Your task to perform on an android device: What's on my calendar tomorrow? Image 0: 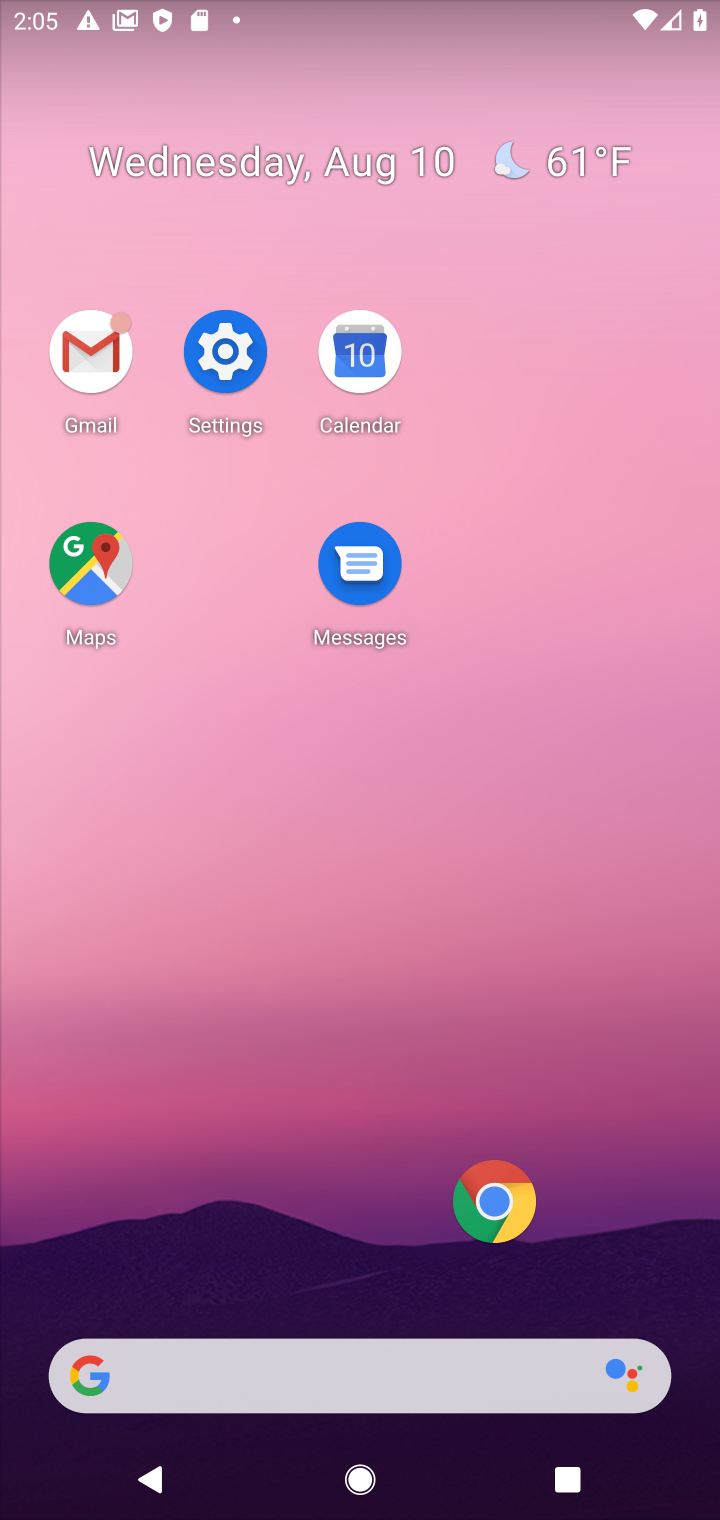
Step 0: click (380, 342)
Your task to perform on an android device: What's on my calendar tomorrow? Image 1: 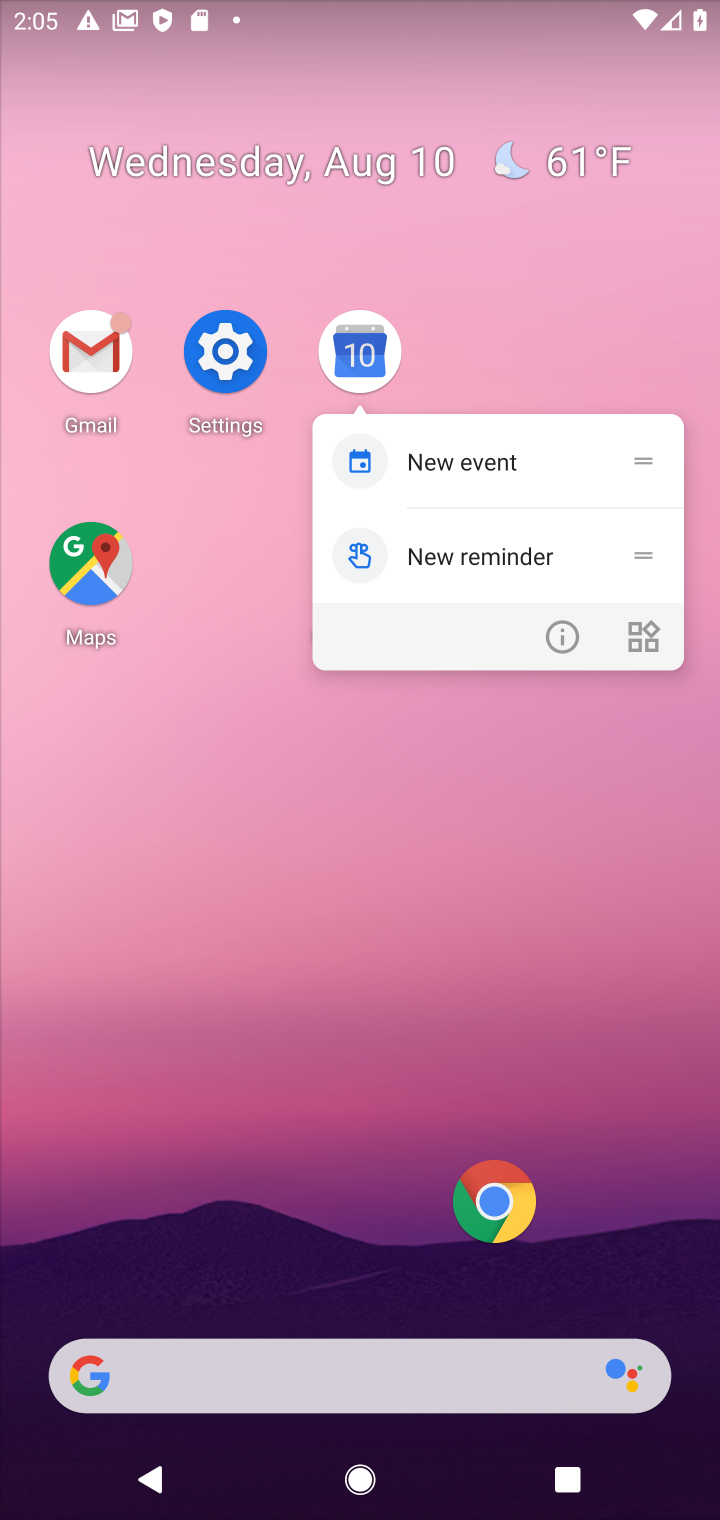
Step 1: click (380, 342)
Your task to perform on an android device: What's on my calendar tomorrow? Image 2: 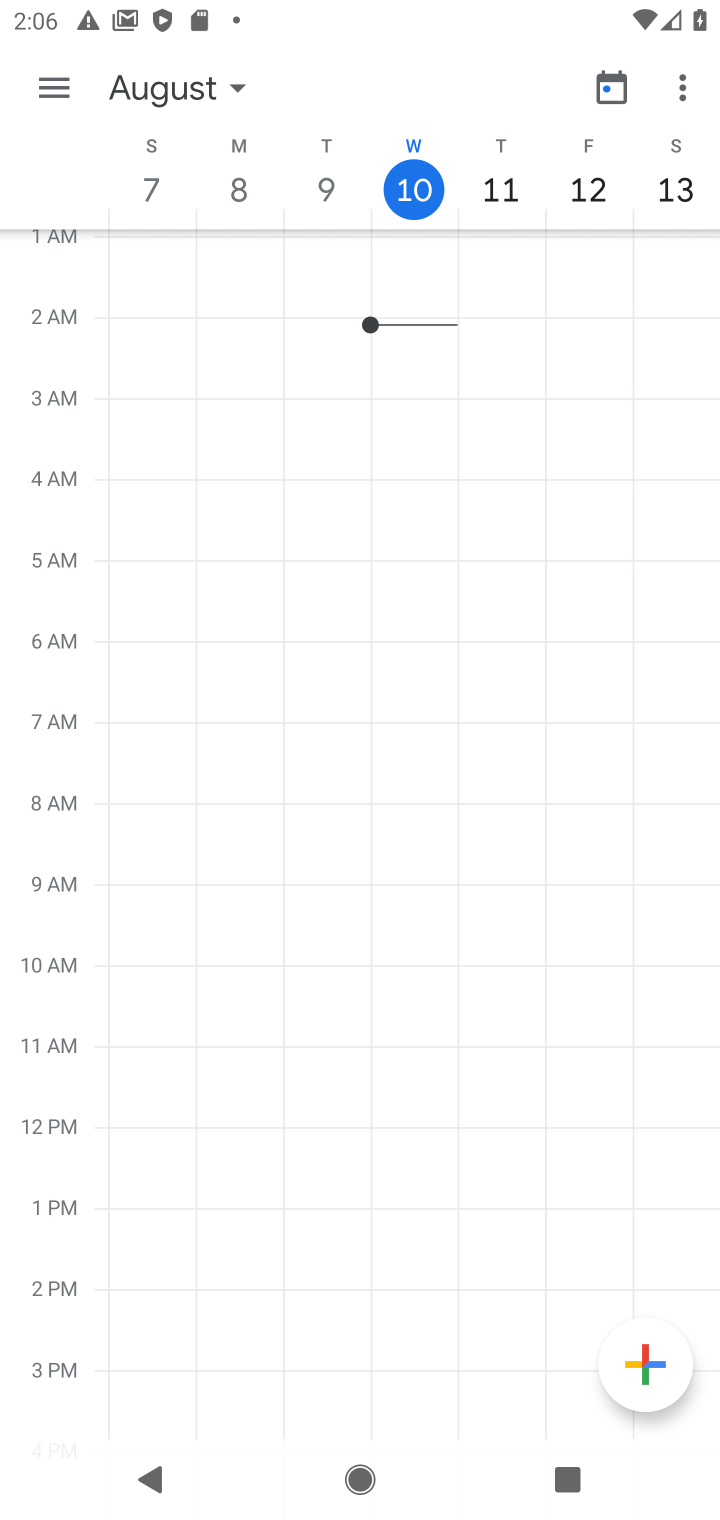
Step 2: click (502, 194)
Your task to perform on an android device: What's on my calendar tomorrow? Image 3: 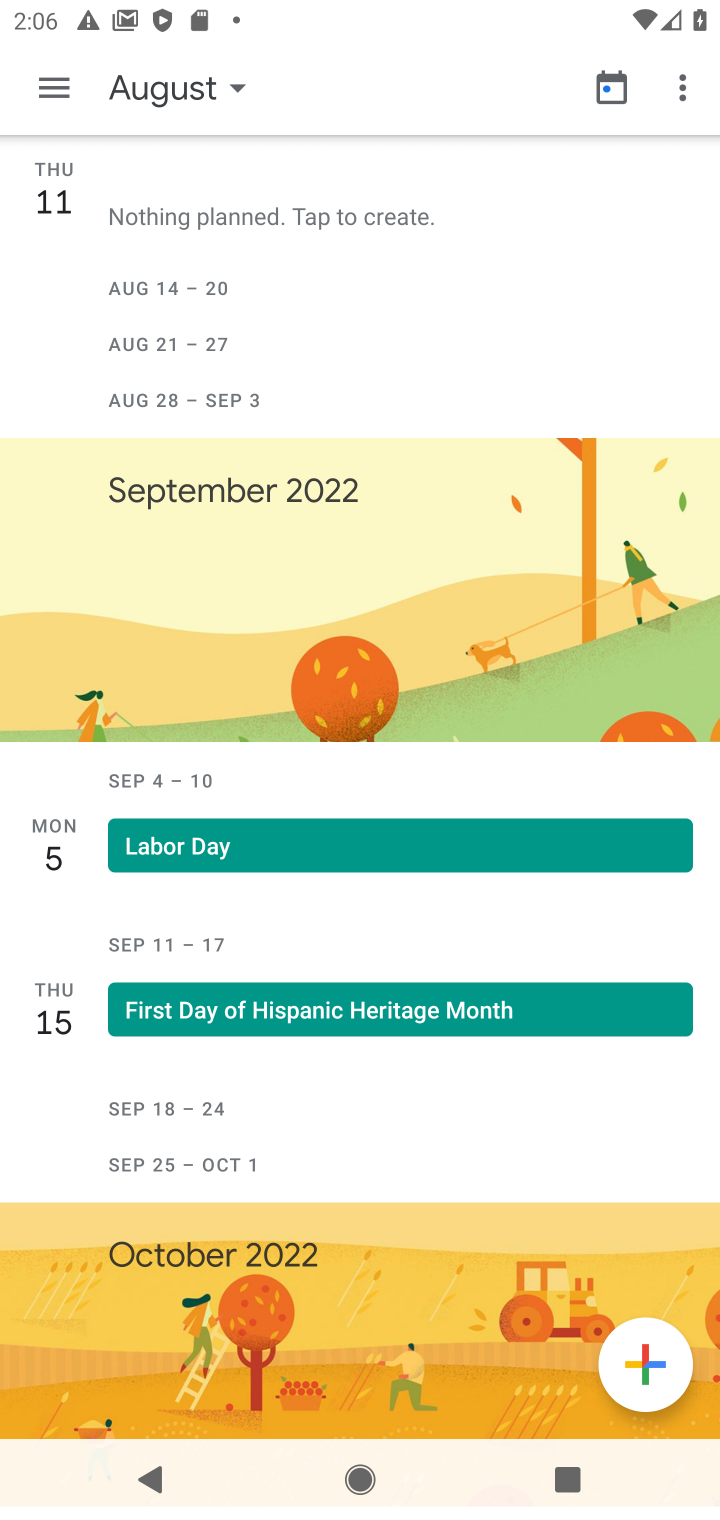
Step 3: task complete